Your task to perform on an android device: turn on the 12-hour format for clock Image 0: 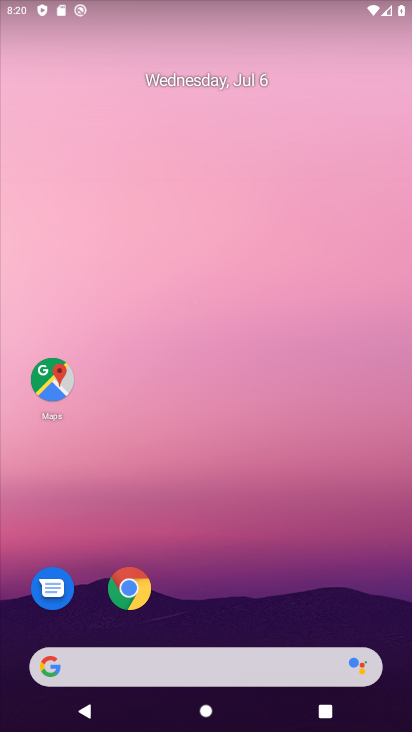
Step 0: drag from (227, 594) to (209, 154)
Your task to perform on an android device: turn on the 12-hour format for clock Image 1: 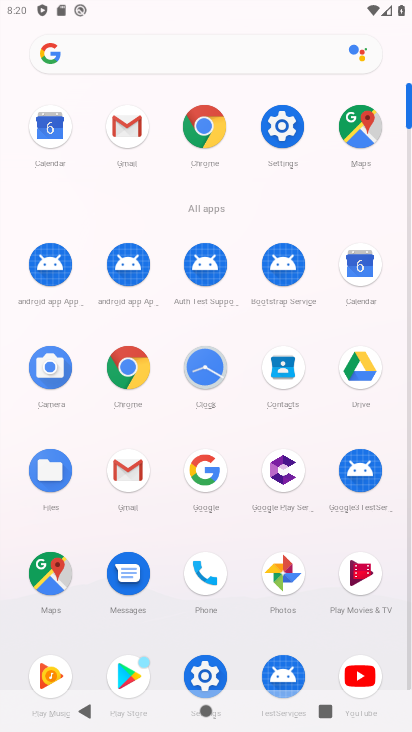
Step 1: click (204, 362)
Your task to perform on an android device: turn on the 12-hour format for clock Image 2: 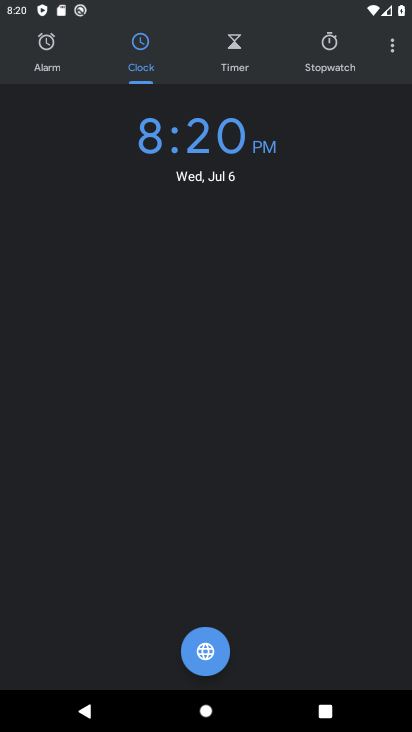
Step 2: click (392, 49)
Your task to perform on an android device: turn on the 12-hour format for clock Image 3: 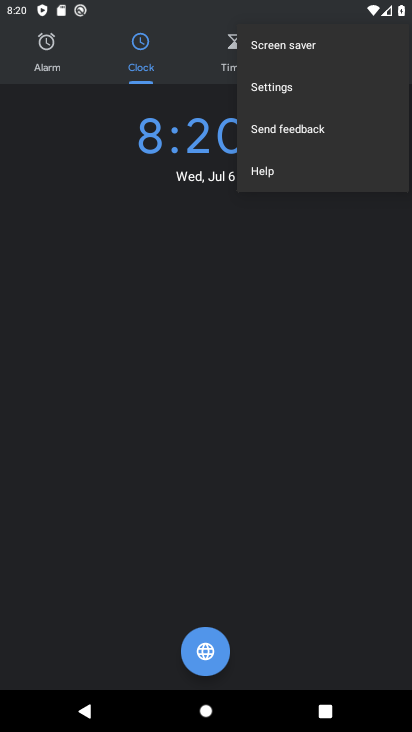
Step 3: click (281, 89)
Your task to perform on an android device: turn on the 12-hour format for clock Image 4: 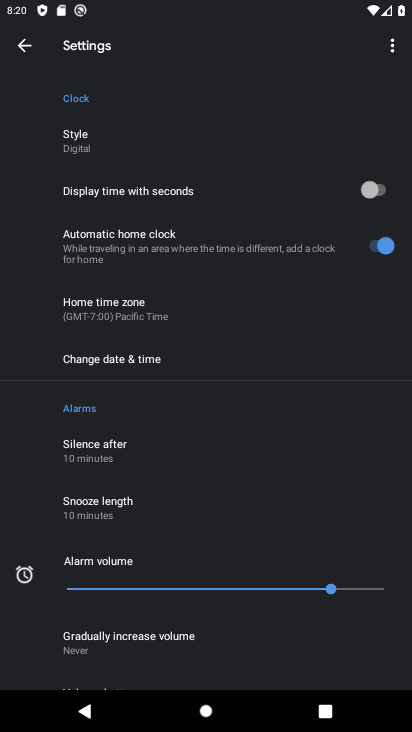
Step 4: click (151, 358)
Your task to perform on an android device: turn on the 12-hour format for clock Image 5: 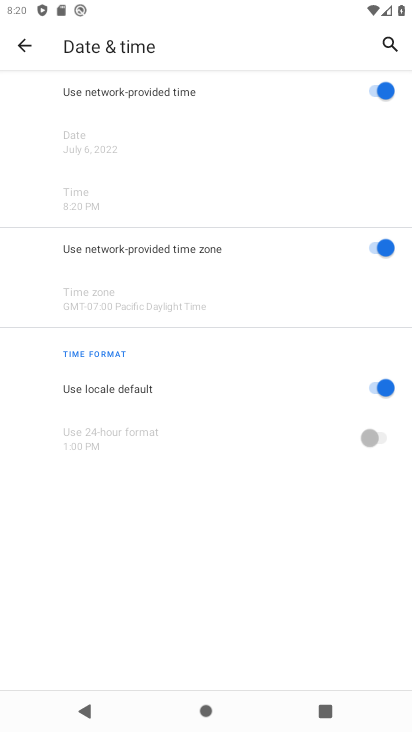
Step 5: task complete